Your task to perform on an android device: What's on my calendar today? Image 0: 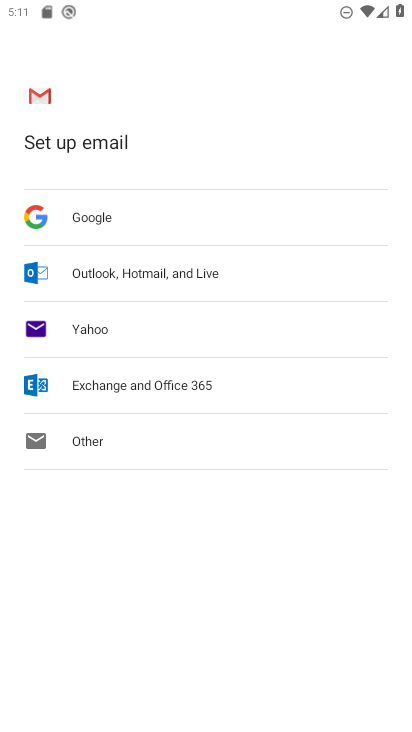
Step 0: press home button
Your task to perform on an android device: What's on my calendar today? Image 1: 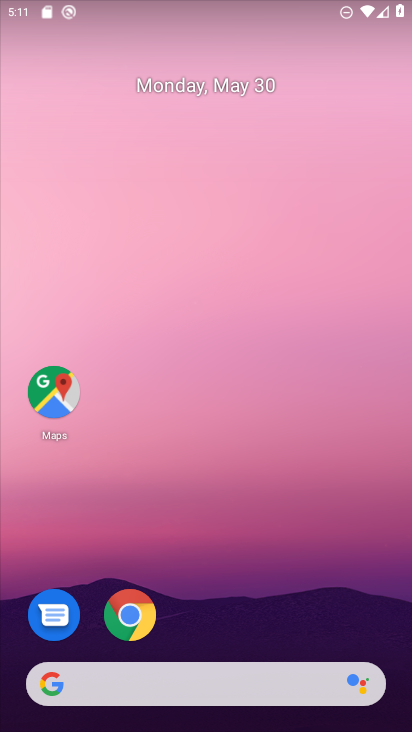
Step 1: click (204, 64)
Your task to perform on an android device: What's on my calendar today? Image 2: 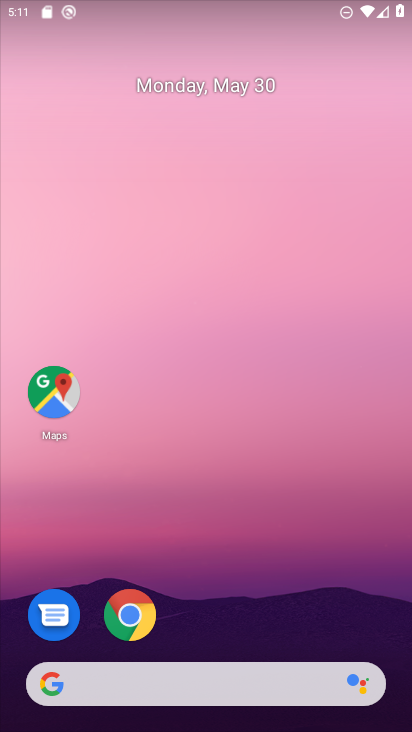
Step 2: click (202, 80)
Your task to perform on an android device: What's on my calendar today? Image 3: 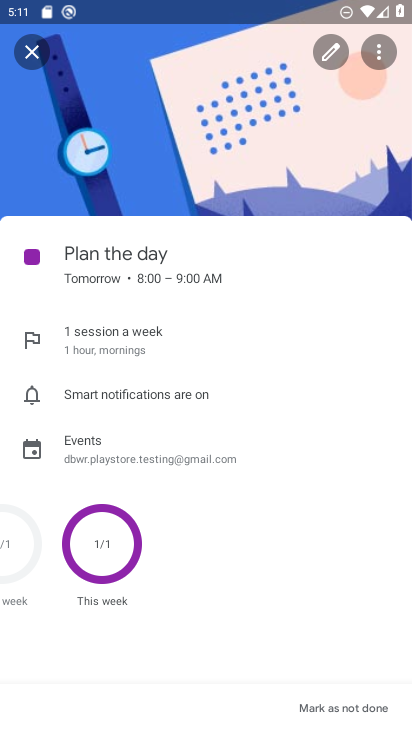
Step 3: click (28, 52)
Your task to perform on an android device: What's on my calendar today? Image 4: 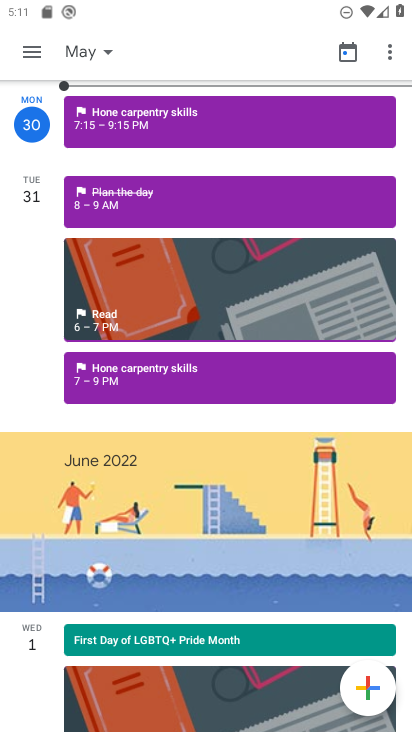
Step 4: click (103, 50)
Your task to perform on an android device: What's on my calendar today? Image 5: 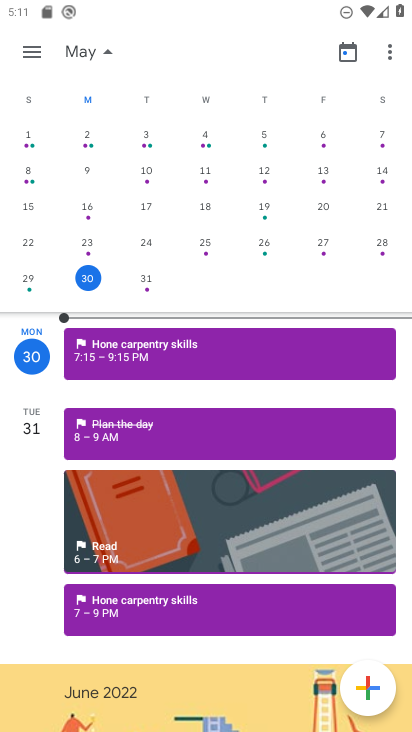
Step 5: click (170, 344)
Your task to perform on an android device: What's on my calendar today? Image 6: 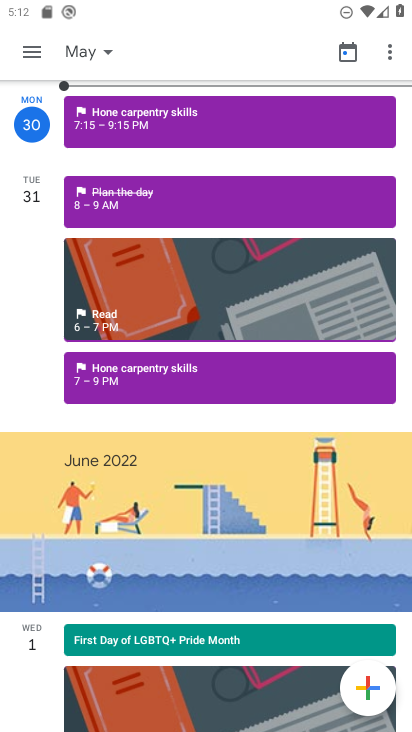
Step 6: task complete